Your task to perform on an android device: Search for the best selling phone on AliExpress Image 0: 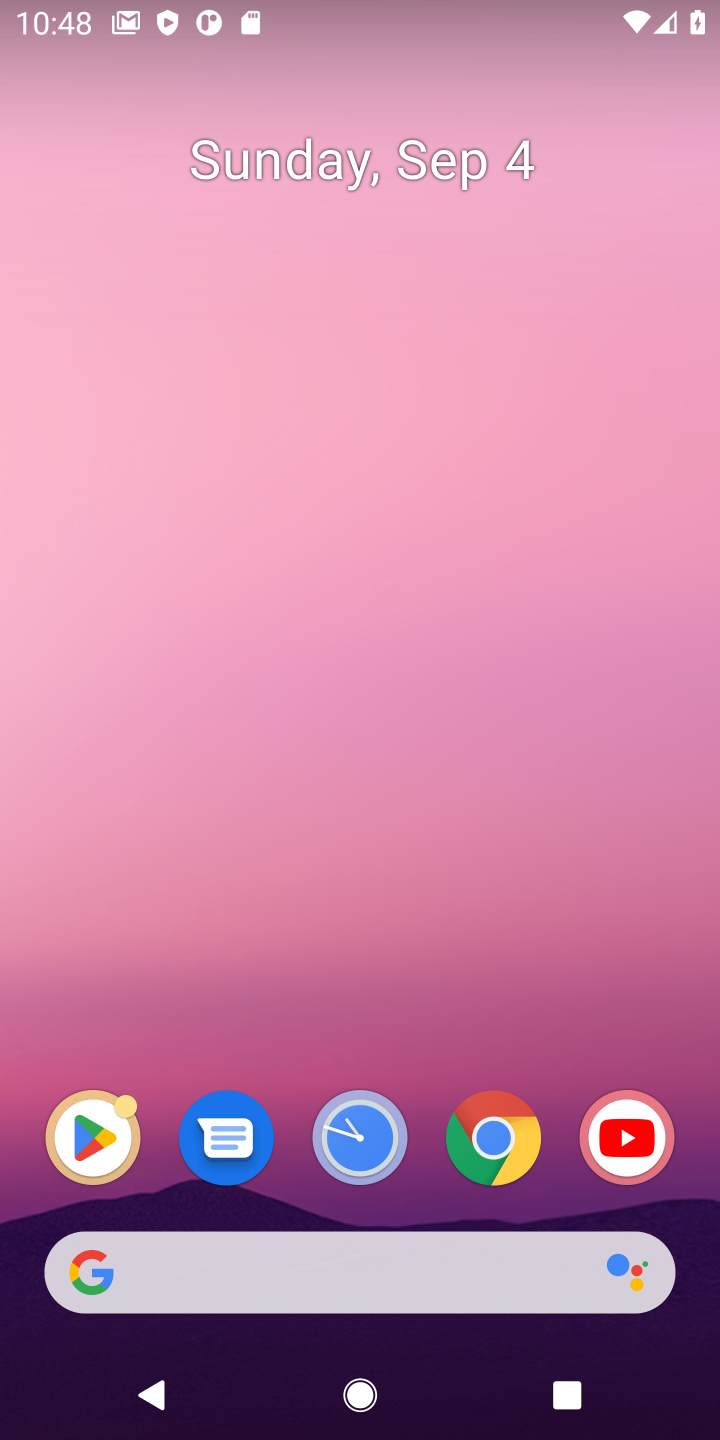
Step 0: click (478, 1170)
Your task to perform on an android device: Search for the best selling phone on AliExpress Image 1: 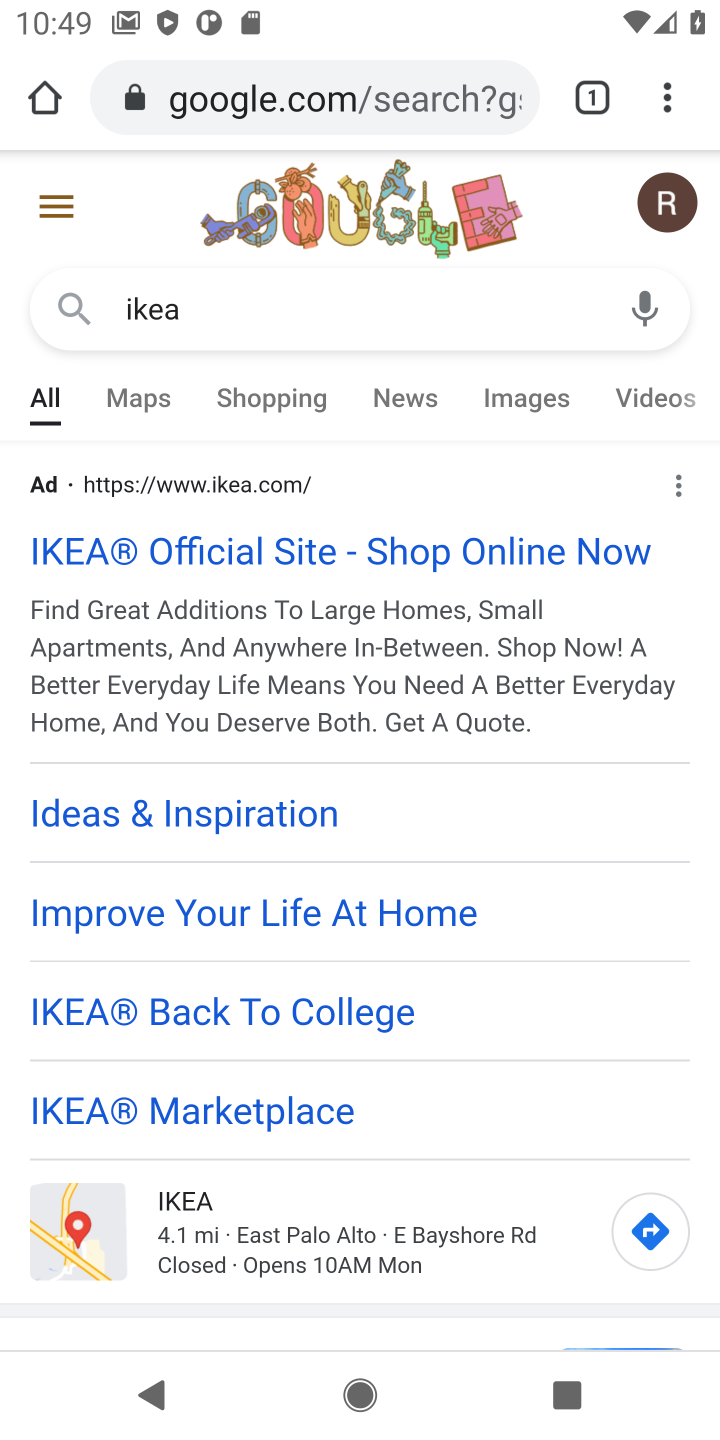
Step 1: click (352, 309)
Your task to perform on an android device: Search for the best selling phone on AliExpress Image 2: 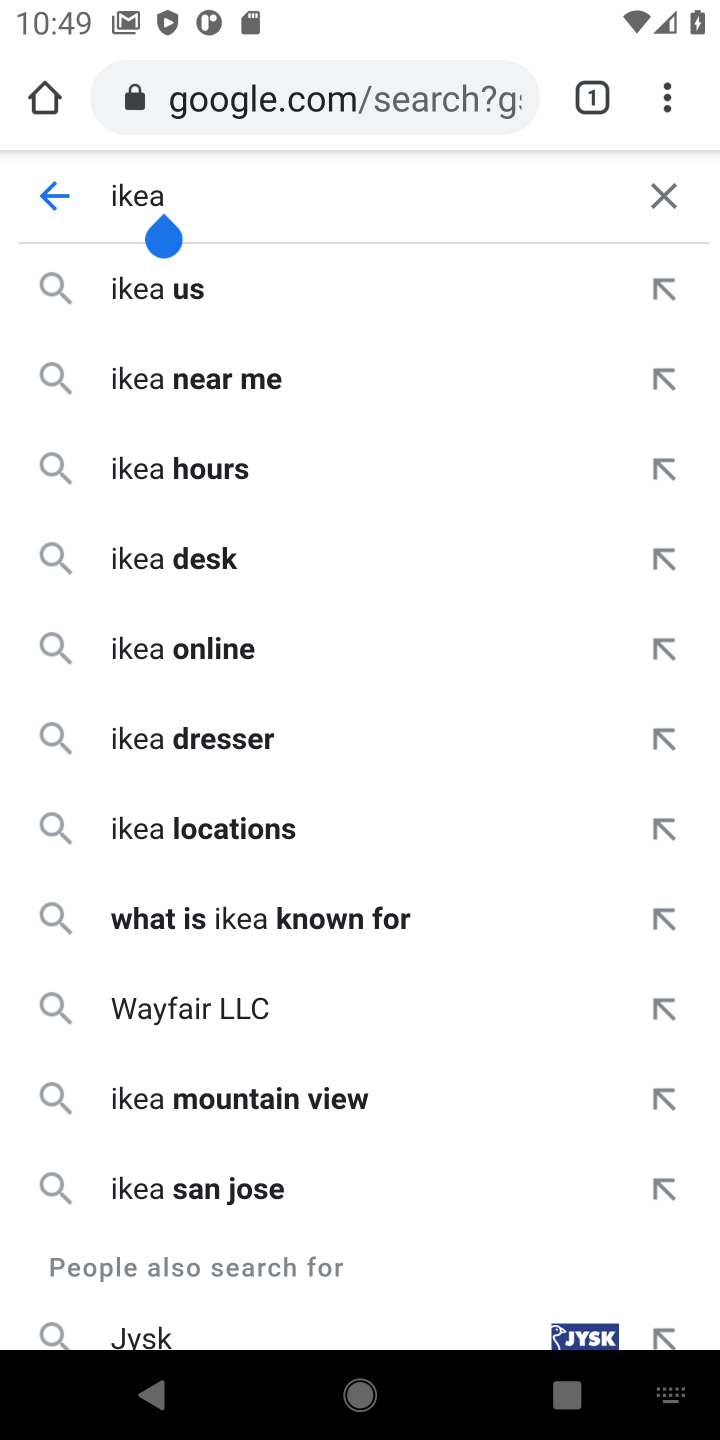
Step 2: click (670, 186)
Your task to perform on an android device: Search for the best selling phone on AliExpress Image 3: 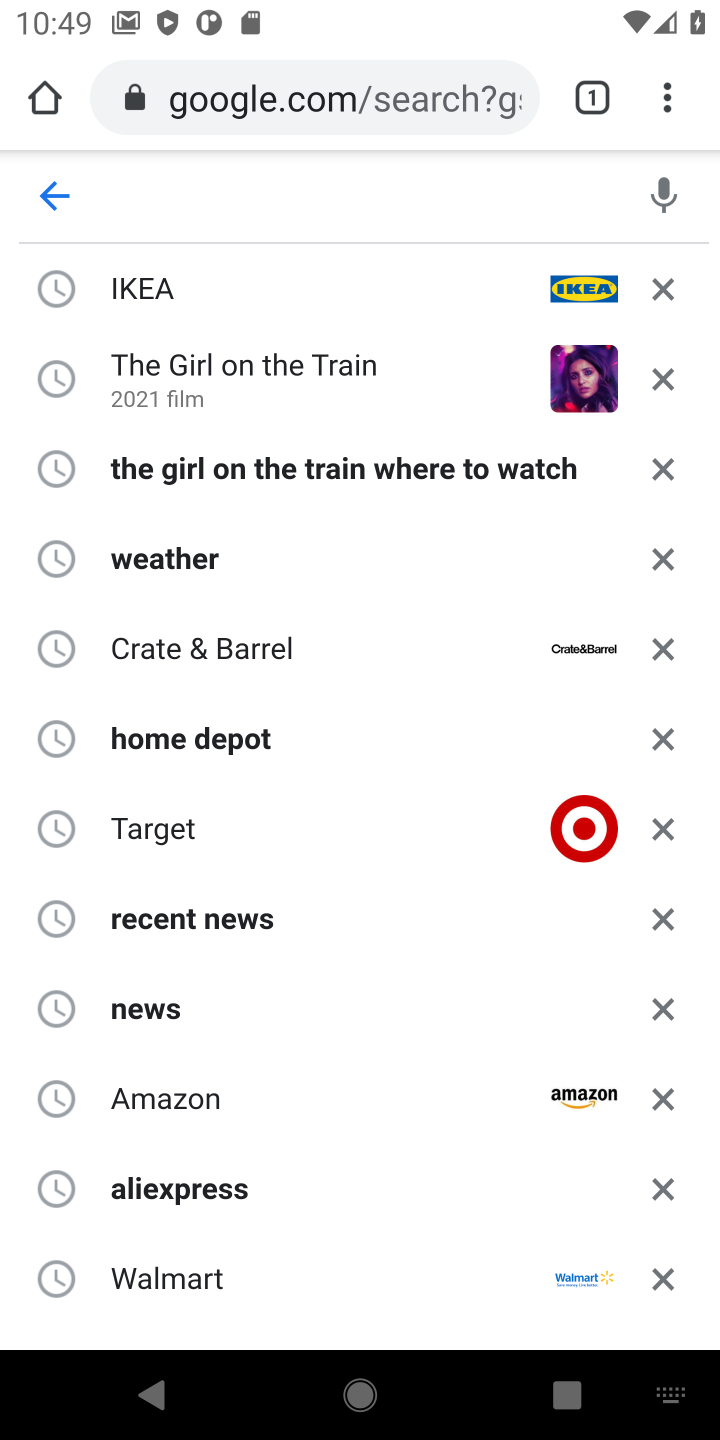
Step 3: type "aliexpress"
Your task to perform on an android device: Search for the best selling phone on AliExpress Image 4: 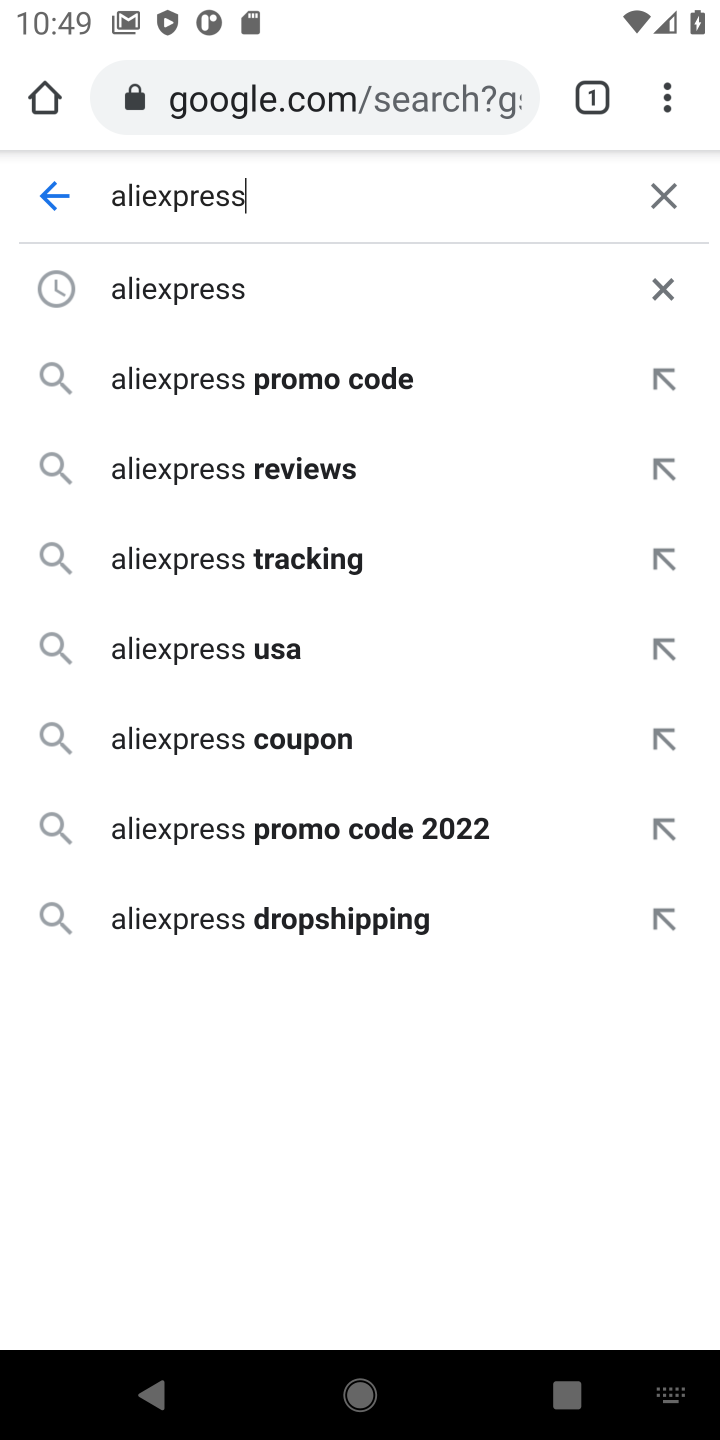
Step 4: click (221, 282)
Your task to perform on an android device: Search for the best selling phone on AliExpress Image 5: 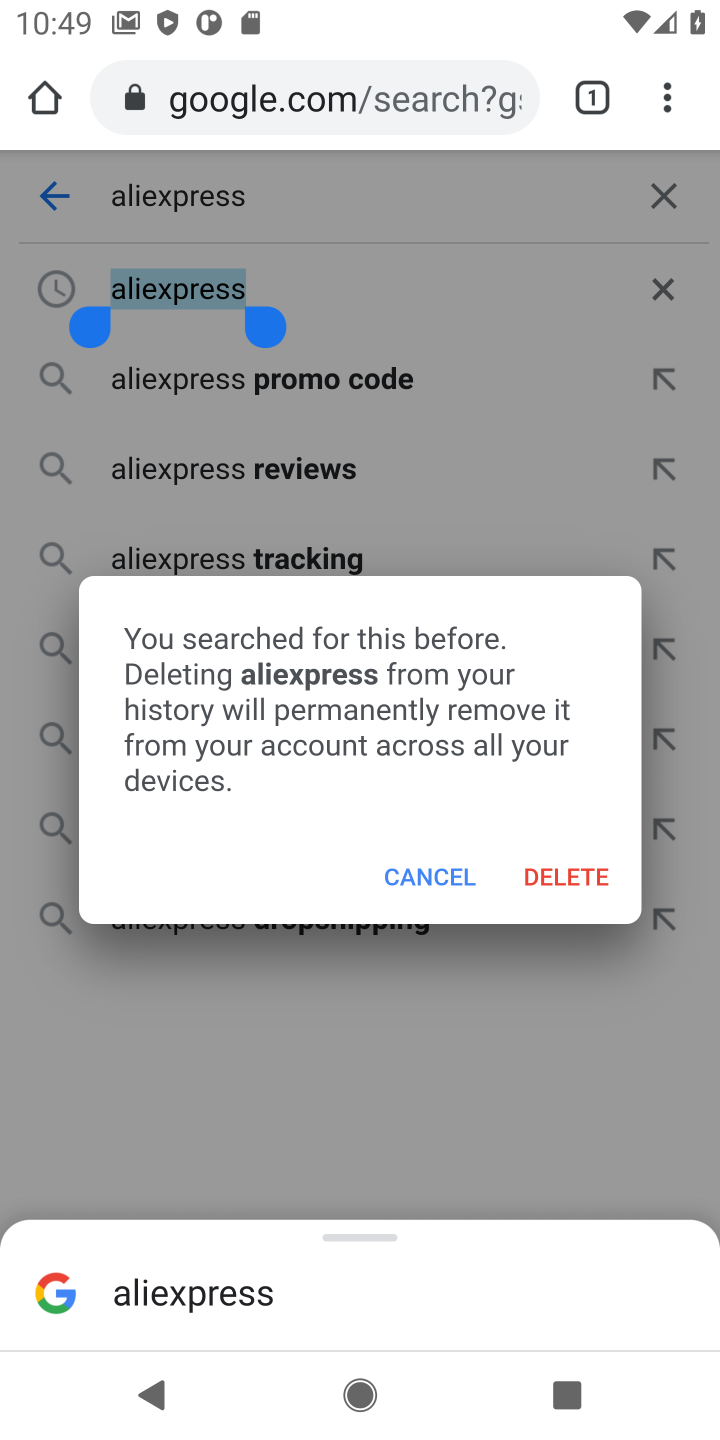
Step 5: click (327, 263)
Your task to perform on an android device: Search for the best selling phone on AliExpress Image 6: 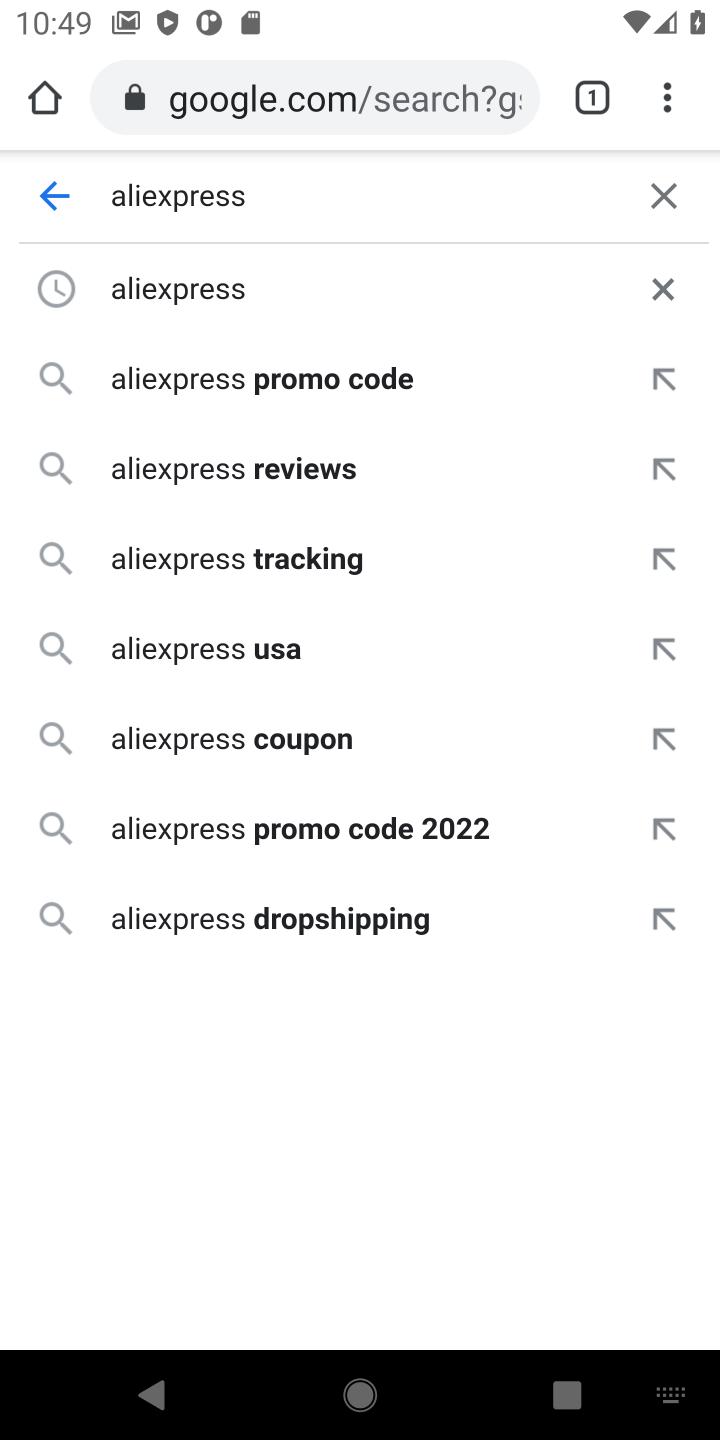
Step 6: click (262, 308)
Your task to perform on an android device: Search for the best selling phone on AliExpress Image 7: 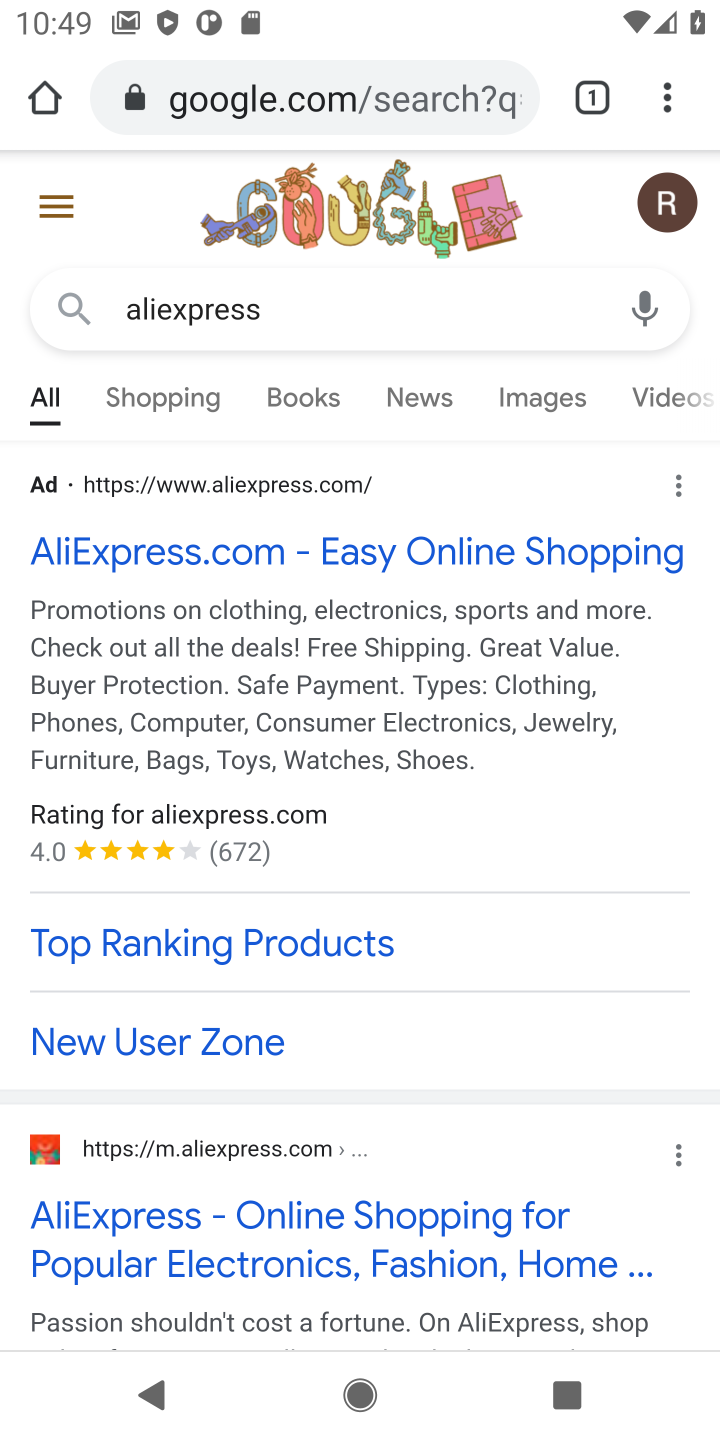
Step 7: click (454, 1261)
Your task to perform on an android device: Search for the best selling phone on AliExpress Image 8: 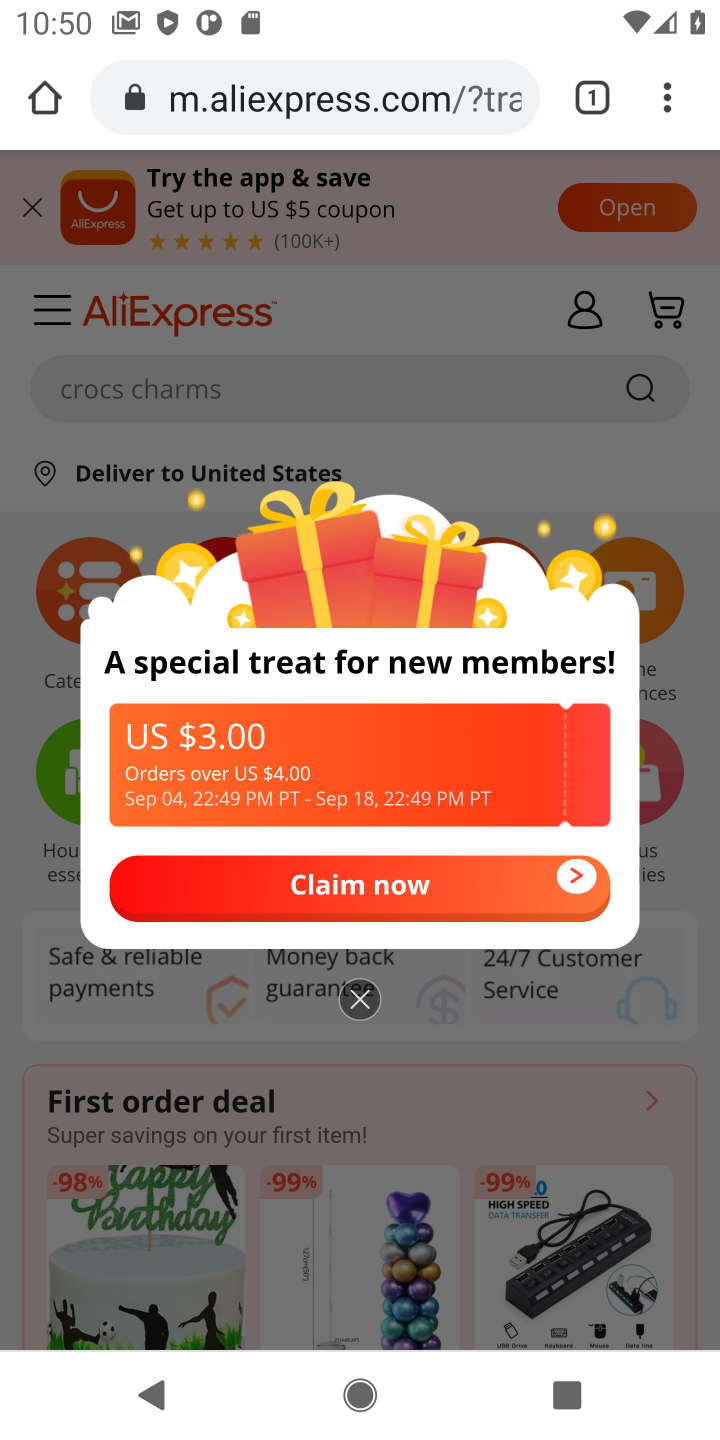
Step 8: click (371, 1007)
Your task to perform on an android device: Search for the best selling phone on AliExpress Image 9: 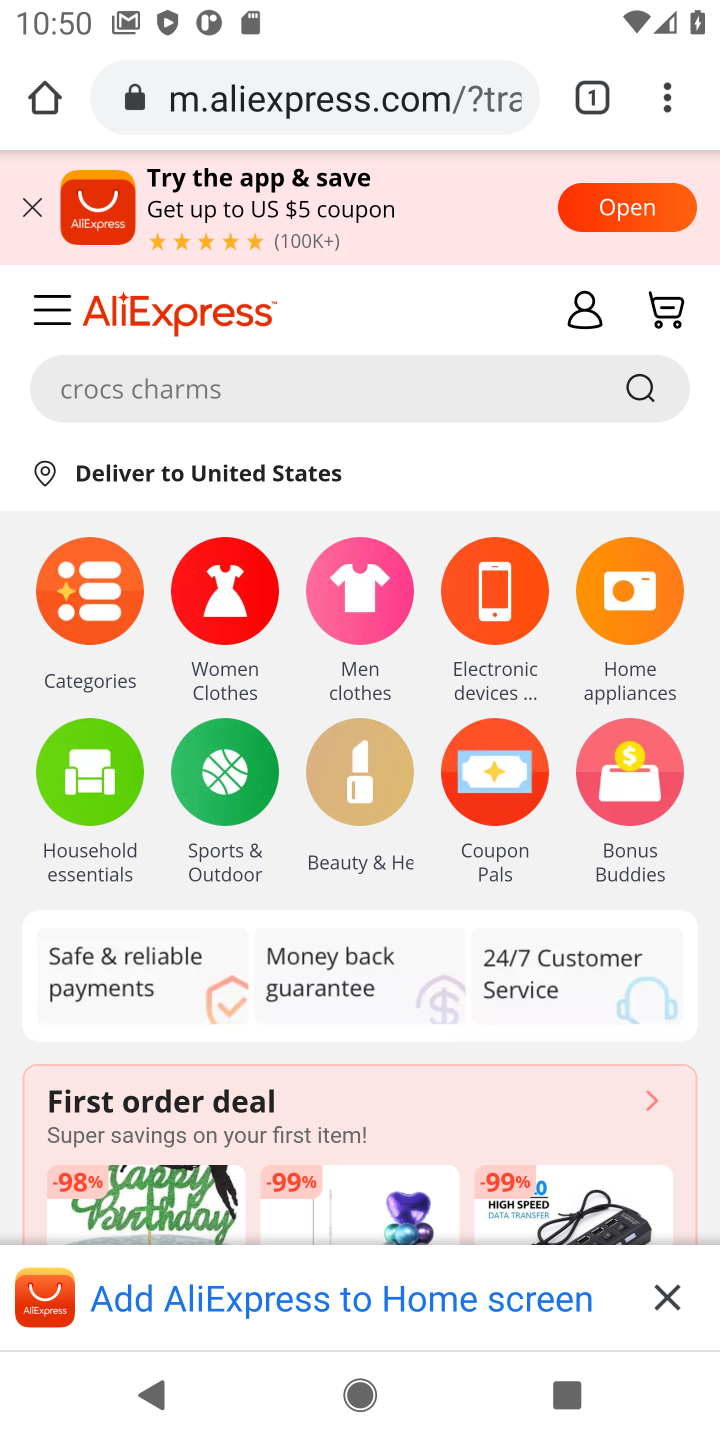
Step 9: click (346, 400)
Your task to perform on an android device: Search for the best selling phone on AliExpress Image 10: 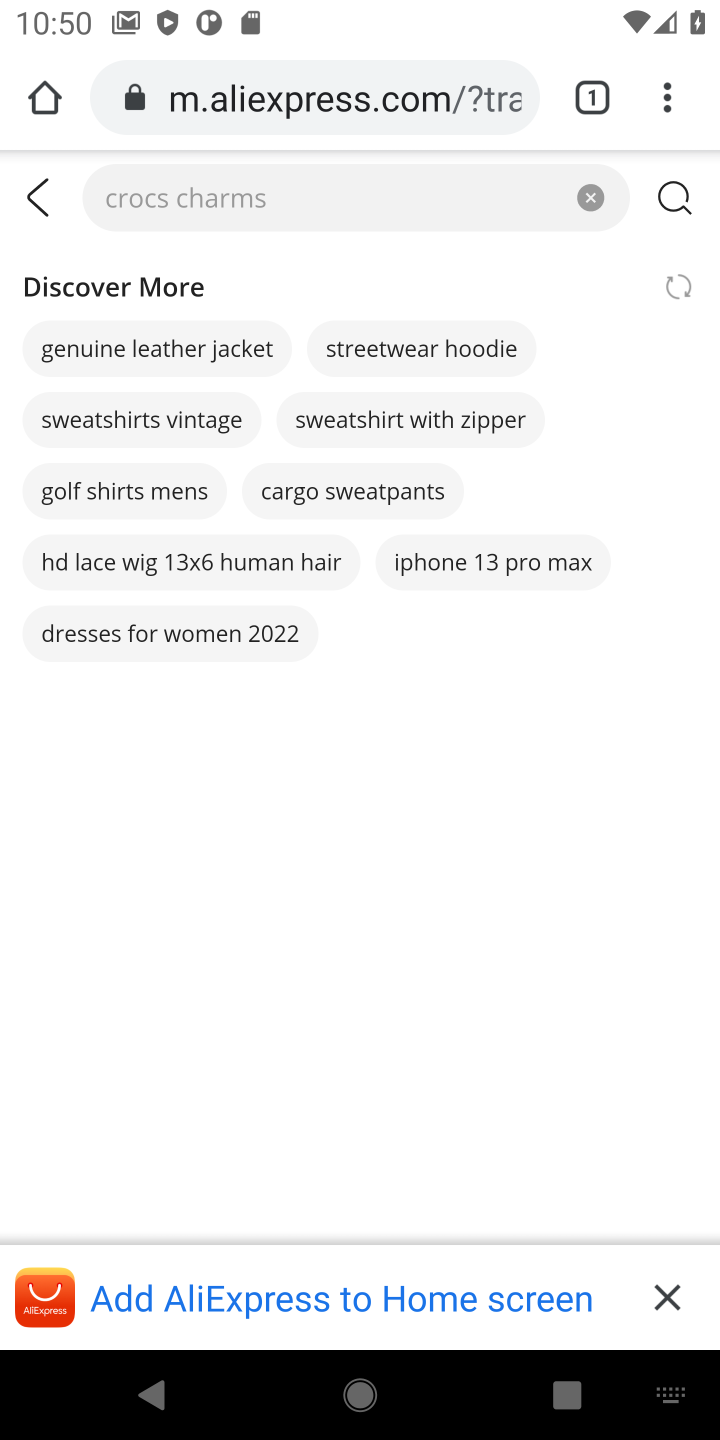
Step 10: type "bset selling phone"
Your task to perform on an android device: Search for the best selling phone on AliExpress Image 11: 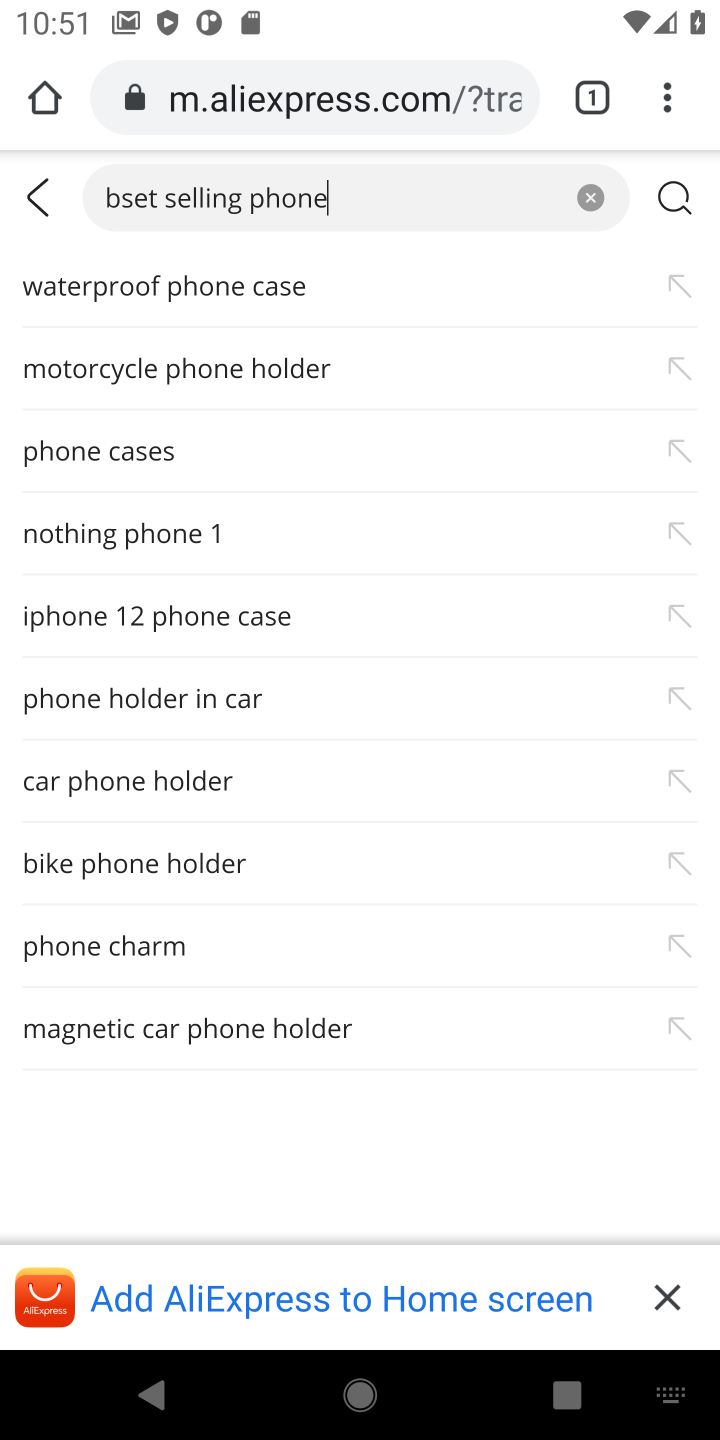
Step 11: press enter
Your task to perform on an android device: Search for the best selling phone on AliExpress Image 12: 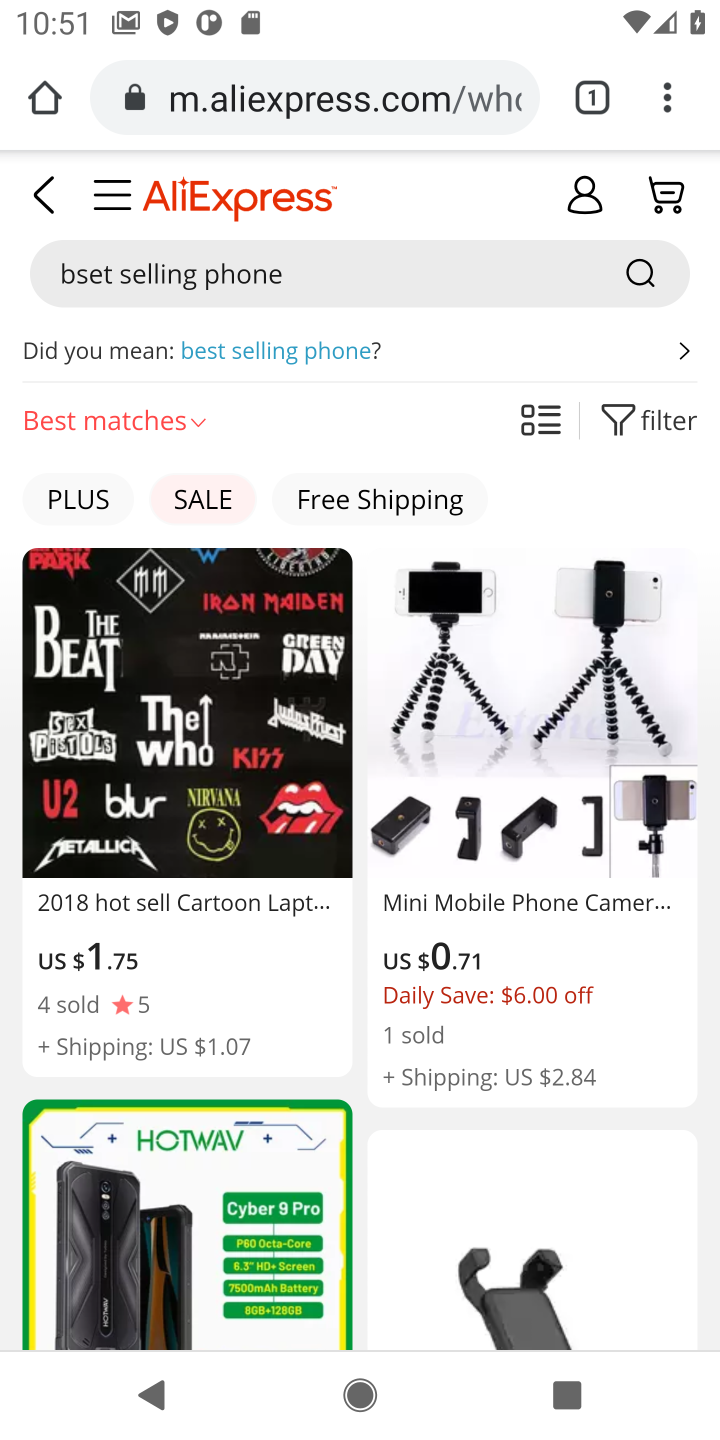
Step 12: task complete